Your task to perform on an android device: turn off smart reply in the gmail app Image 0: 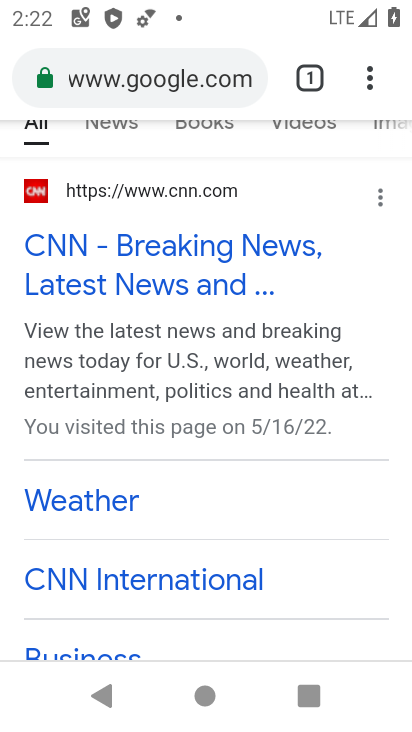
Step 0: press home button
Your task to perform on an android device: turn off smart reply in the gmail app Image 1: 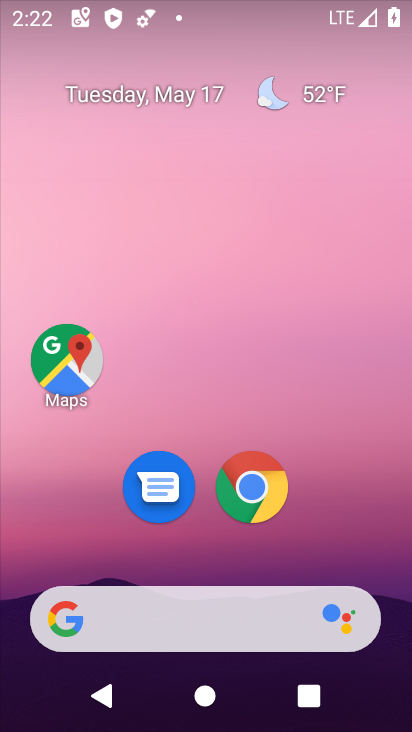
Step 1: drag from (399, 652) to (370, 401)
Your task to perform on an android device: turn off smart reply in the gmail app Image 2: 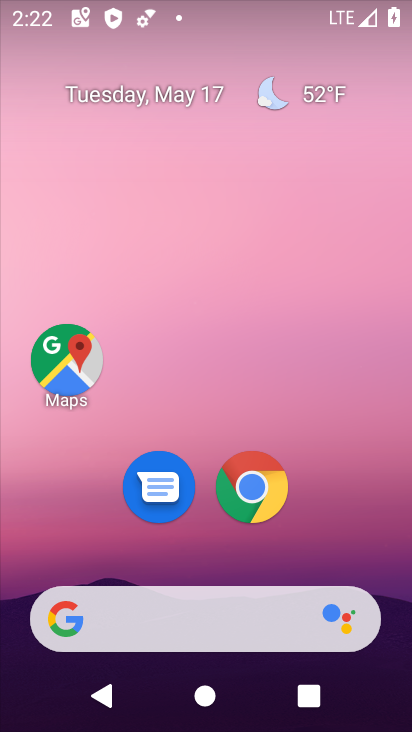
Step 2: drag from (395, 648) to (381, 457)
Your task to perform on an android device: turn off smart reply in the gmail app Image 3: 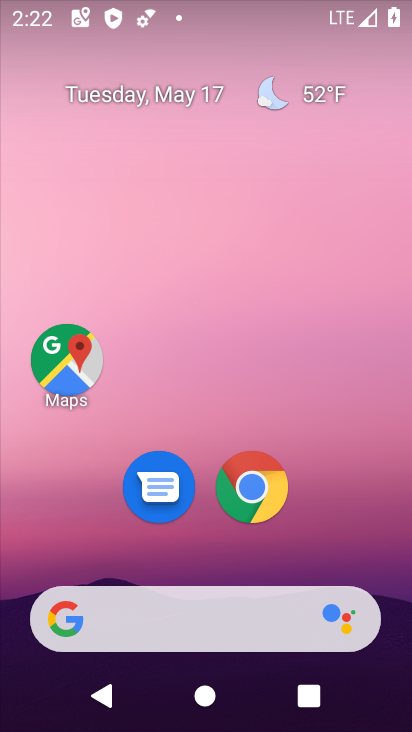
Step 3: drag from (400, 640) to (379, 323)
Your task to perform on an android device: turn off smart reply in the gmail app Image 4: 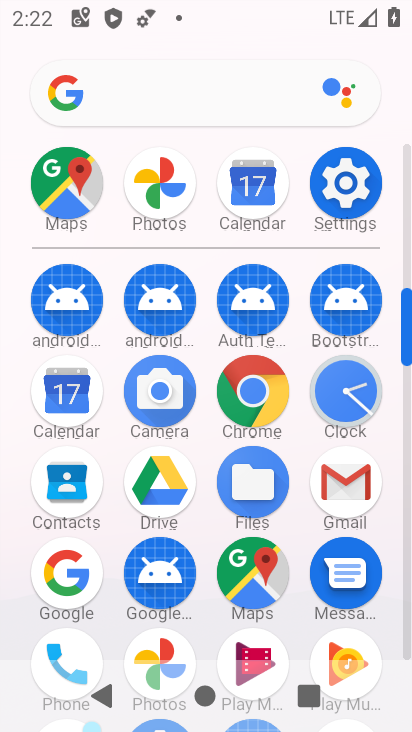
Step 4: click (351, 480)
Your task to perform on an android device: turn off smart reply in the gmail app Image 5: 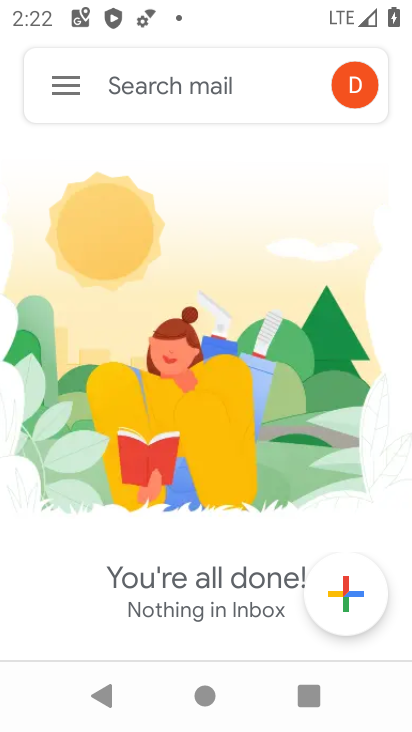
Step 5: click (69, 85)
Your task to perform on an android device: turn off smart reply in the gmail app Image 6: 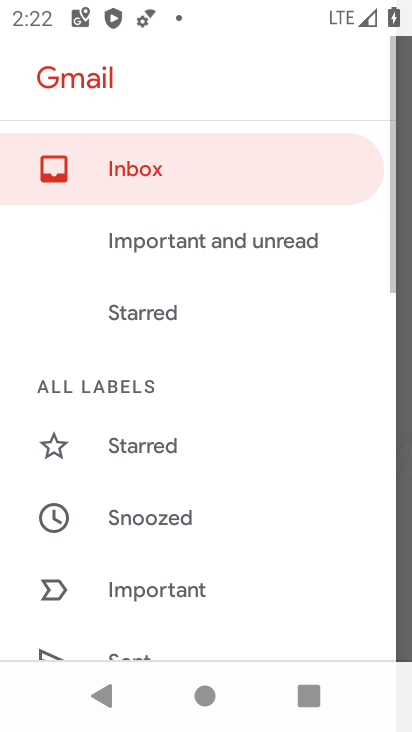
Step 6: drag from (280, 613) to (244, 417)
Your task to perform on an android device: turn off smart reply in the gmail app Image 7: 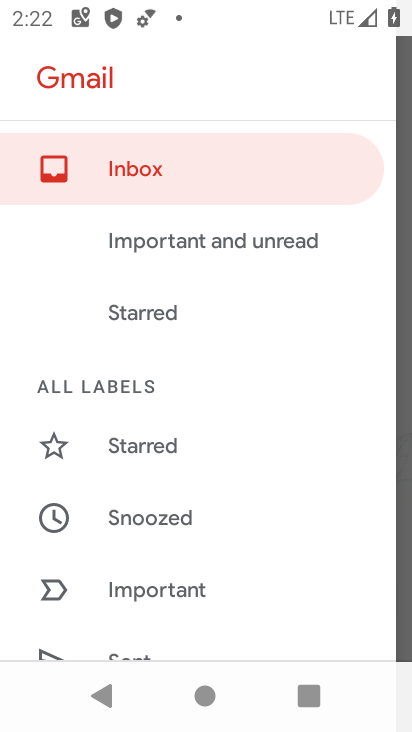
Step 7: drag from (324, 558) to (331, 438)
Your task to perform on an android device: turn off smart reply in the gmail app Image 8: 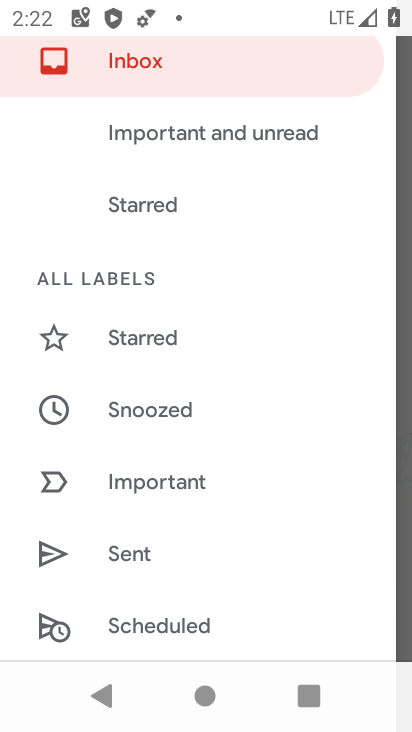
Step 8: drag from (327, 479) to (324, 402)
Your task to perform on an android device: turn off smart reply in the gmail app Image 9: 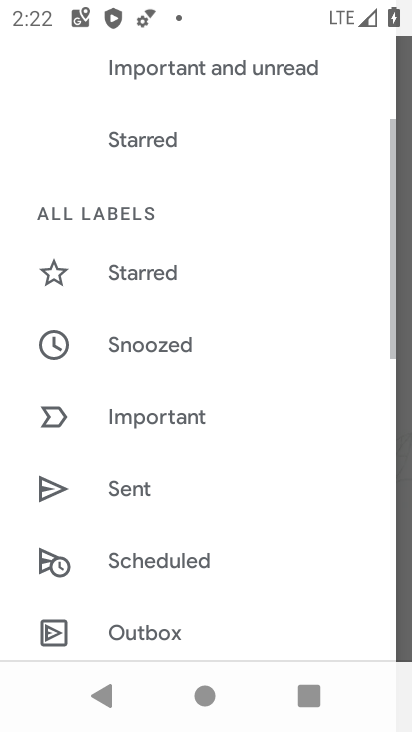
Step 9: drag from (308, 630) to (314, 346)
Your task to perform on an android device: turn off smart reply in the gmail app Image 10: 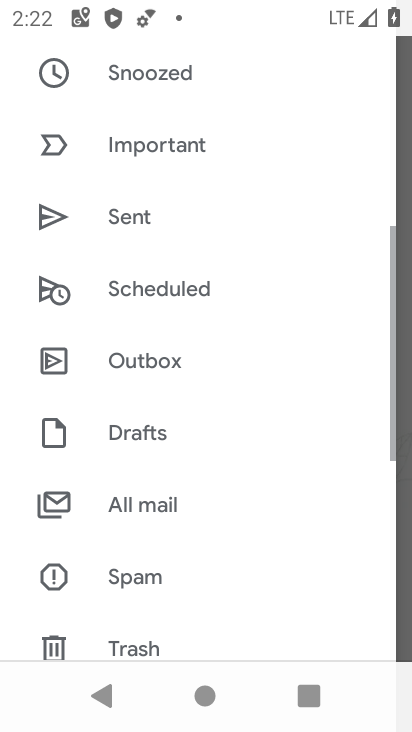
Step 10: drag from (290, 628) to (290, 288)
Your task to perform on an android device: turn off smart reply in the gmail app Image 11: 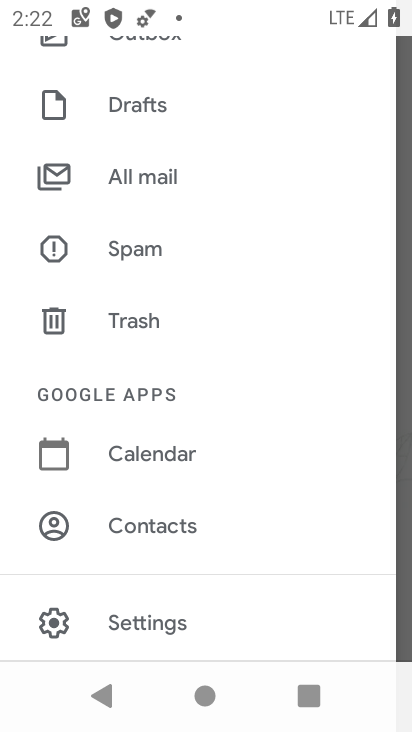
Step 11: drag from (277, 611) to (281, 351)
Your task to perform on an android device: turn off smart reply in the gmail app Image 12: 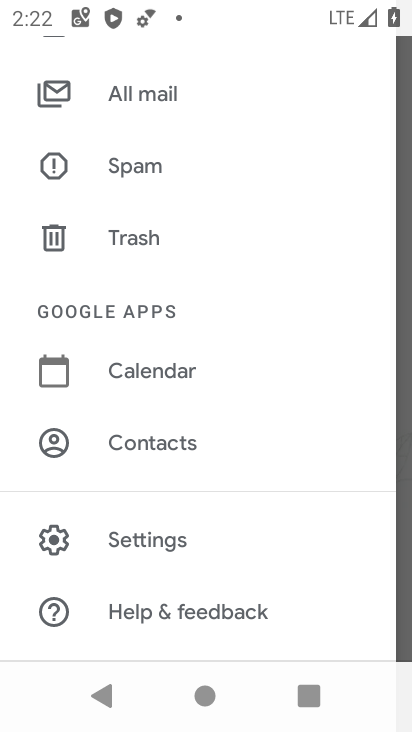
Step 12: click (164, 544)
Your task to perform on an android device: turn off smart reply in the gmail app Image 13: 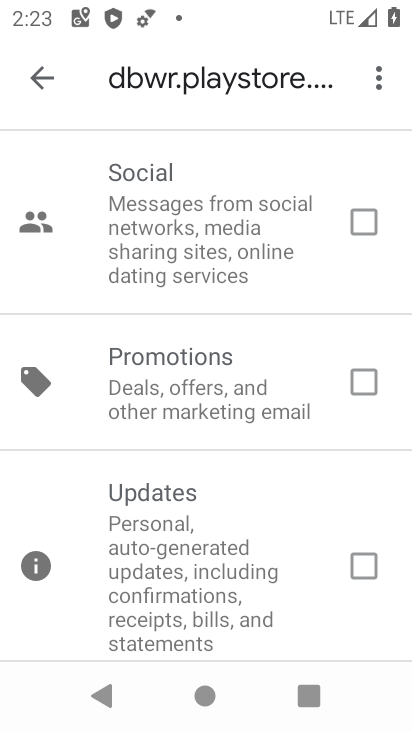
Step 13: click (42, 81)
Your task to perform on an android device: turn off smart reply in the gmail app Image 14: 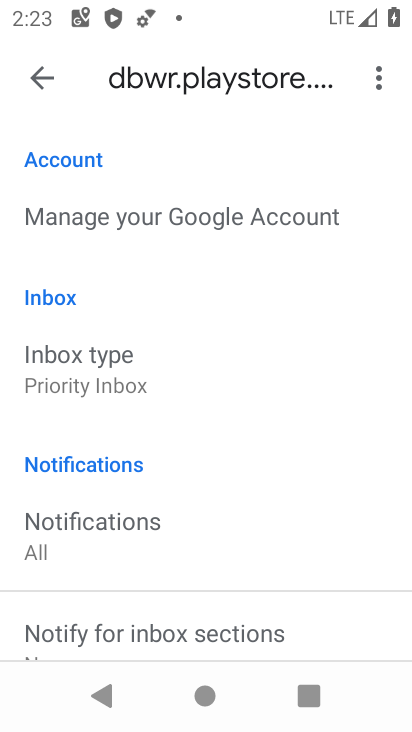
Step 14: drag from (253, 431) to (226, 343)
Your task to perform on an android device: turn off smart reply in the gmail app Image 15: 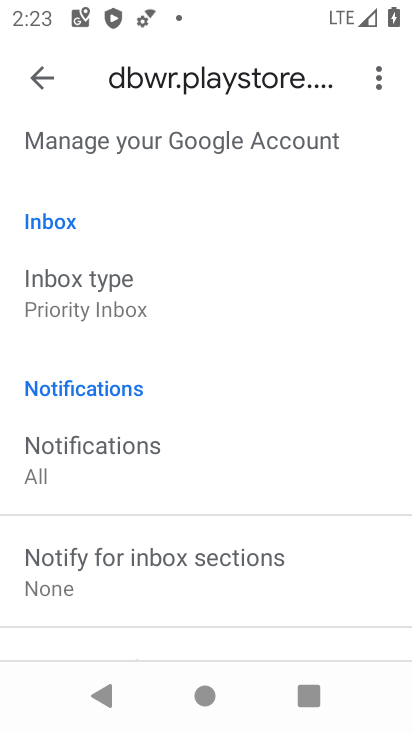
Step 15: drag from (308, 607) to (290, 509)
Your task to perform on an android device: turn off smart reply in the gmail app Image 16: 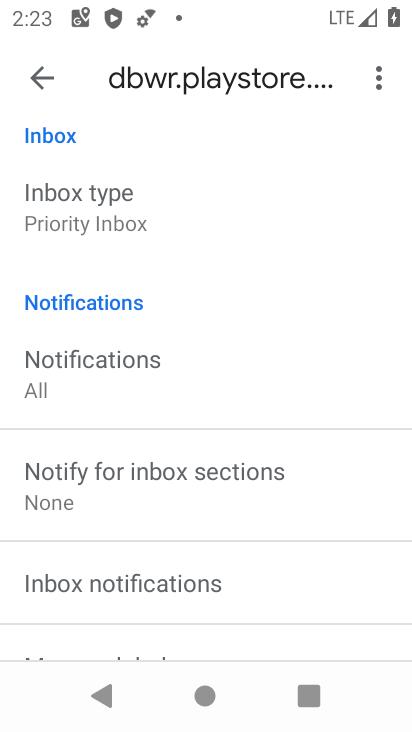
Step 16: drag from (265, 595) to (263, 388)
Your task to perform on an android device: turn off smart reply in the gmail app Image 17: 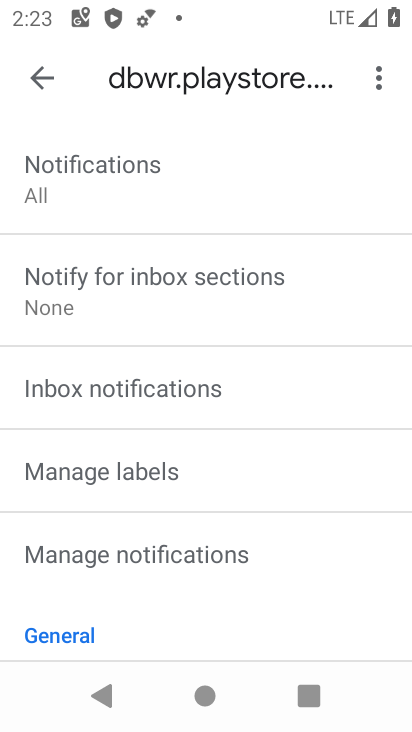
Step 17: drag from (275, 220) to (293, 379)
Your task to perform on an android device: turn off smart reply in the gmail app Image 18: 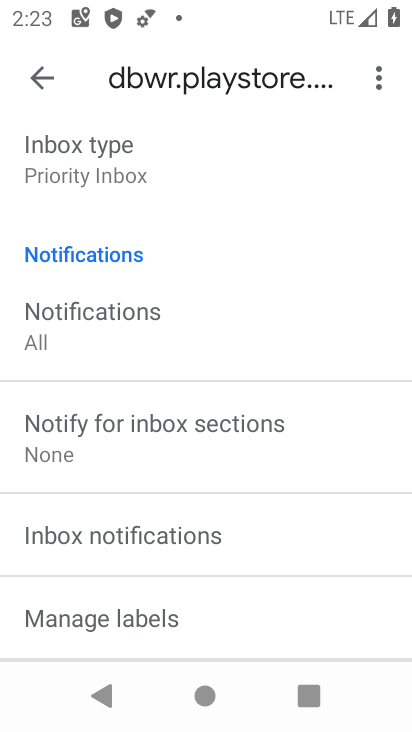
Step 18: drag from (303, 275) to (321, 454)
Your task to perform on an android device: turn off smart reply in the gmail app Image 19: 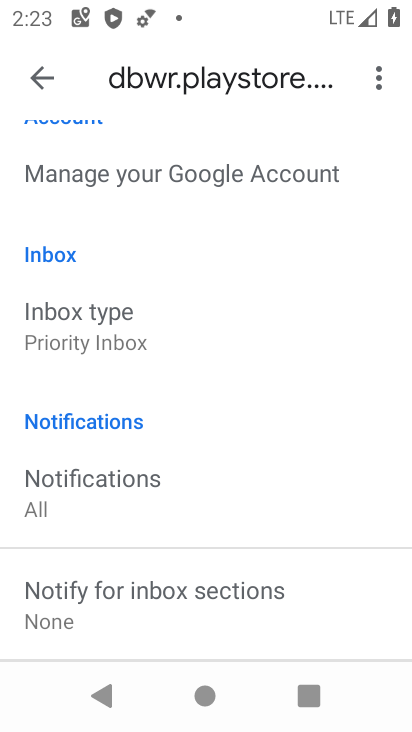
Step 19: drag from (288, 399) to (302, 255)
Your task to perform on an android device: turn off smart reply in the gmail app Image 20: 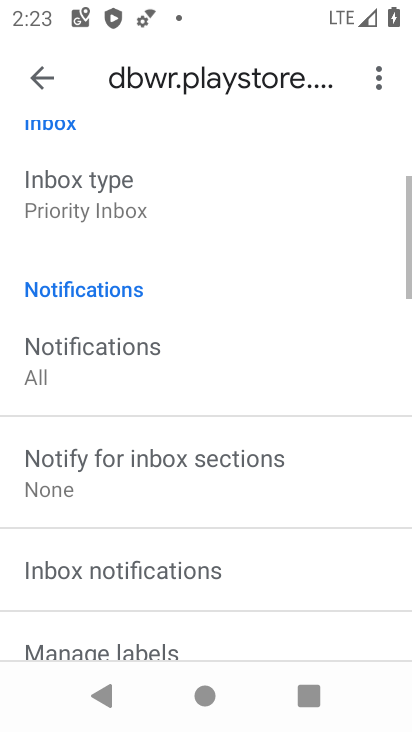
Step 20: drag from (282, 642) to (289, 394)
Your task to perform on an android device: turn off smart reply in the gmail app Image 21: 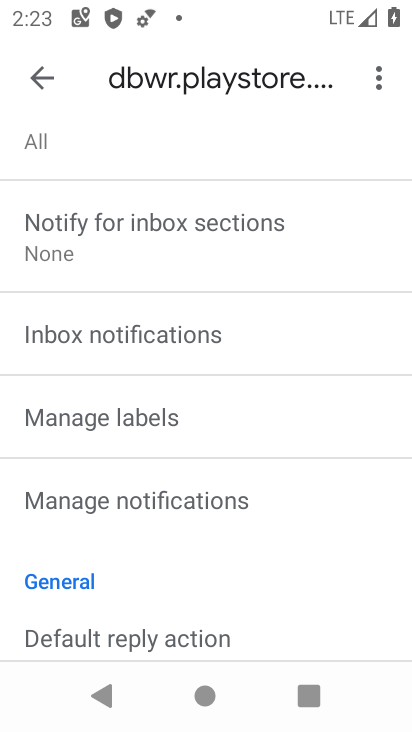
Step 21: drag from (270, 605) to (274, 347)
Your task to perform on an android device: turn off smart reply in the gmail app Image 22: 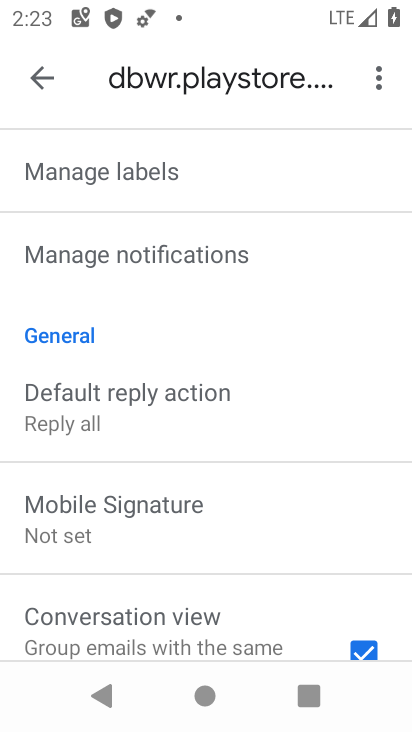
Step 22: drag from (252, 622) to (280, 381)
Your task to perform on an android device: turn off smart reply in the gmail app Image 23: 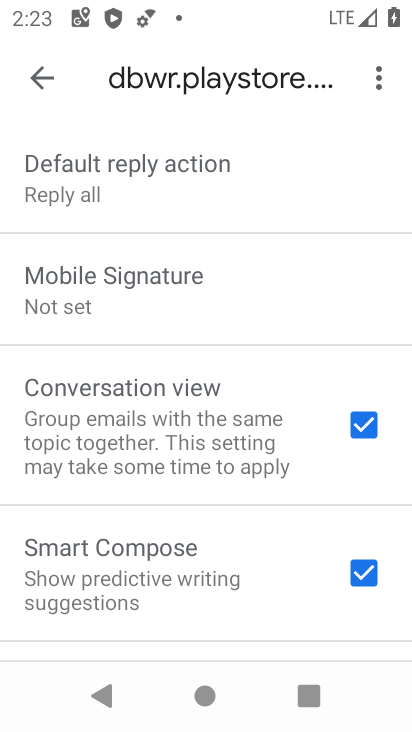
Step 23: drag from (260, 592) to (279, 390)
Your task to perform on an android device: turn off smart reply in the gmail app Image 24: 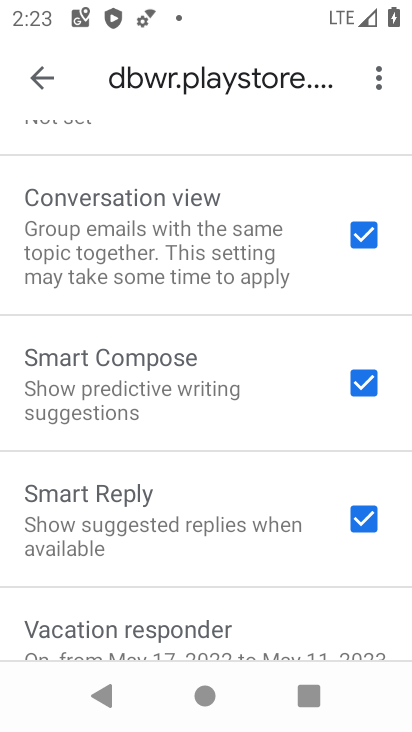
Step 24: click (368, 523)
Your task to perform on an android device: turn off smart reply in the gmail app Image 25: 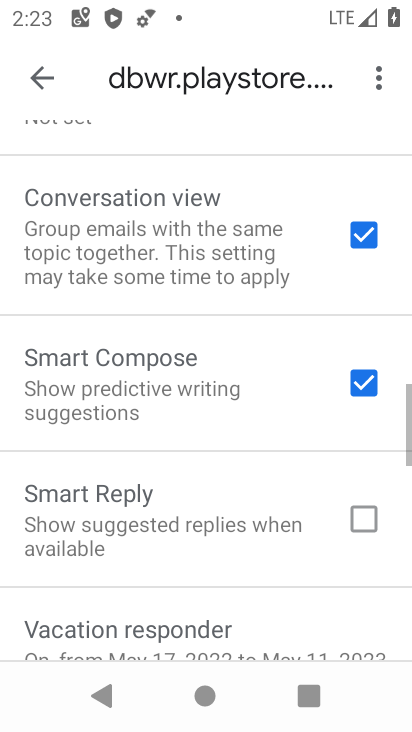
Step 25: task complete